Your task to perform on an android device: open app "Google Play services" (install if not already installed) Image 0: 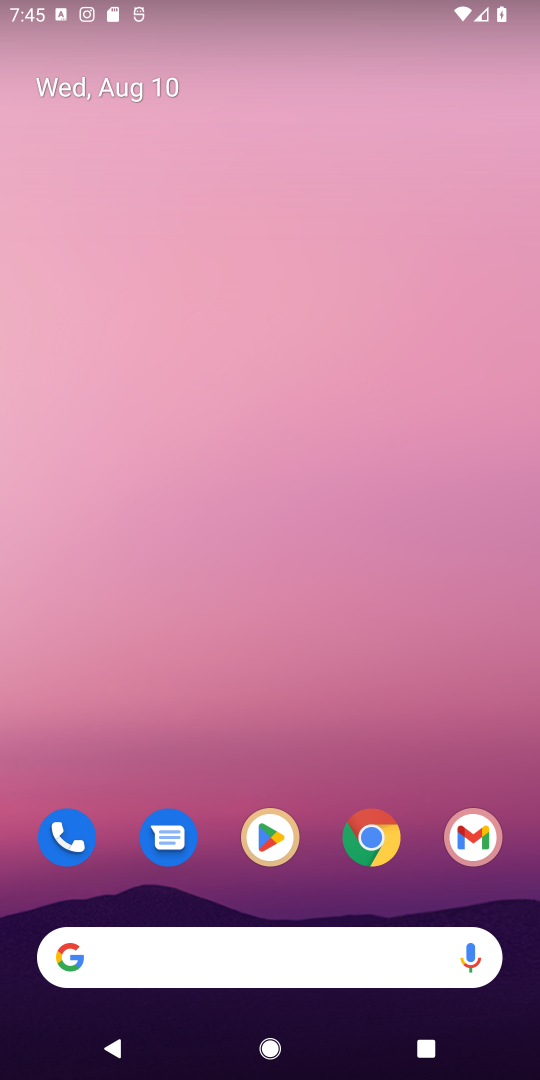
Step 0: click (264, 844)
Your task to perform on an android device: open app "Google Play services" (install if not already installed) Image 1: 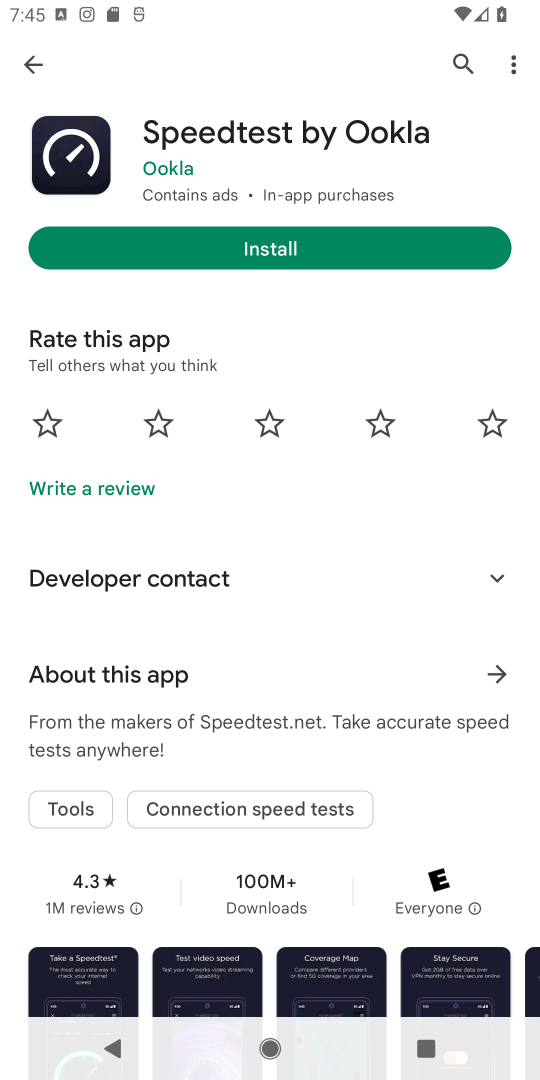
Step 1: click (465, 53)
Your task to perform on an android device: open app "Google Play services" (install if not already installed) Image 2: 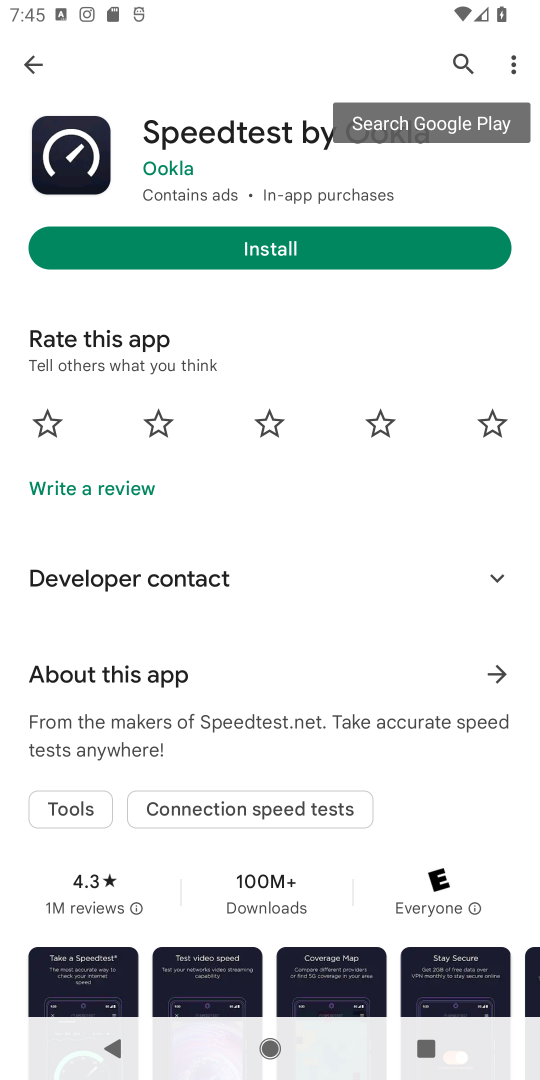
Step 2: click (464, 64)
Your task to perform on an android device: open app "Google Play services" (install if not already installed) Image 3: 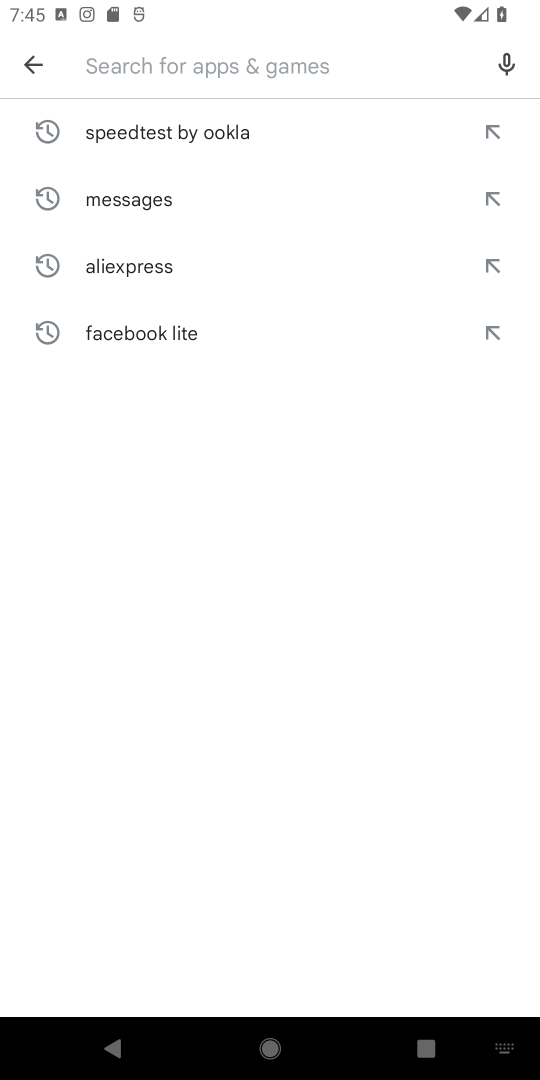
Step 3: type "Google Play services"
Your task to perform on an android device: open app "Google Play services" (install if not already installed) Image 4: 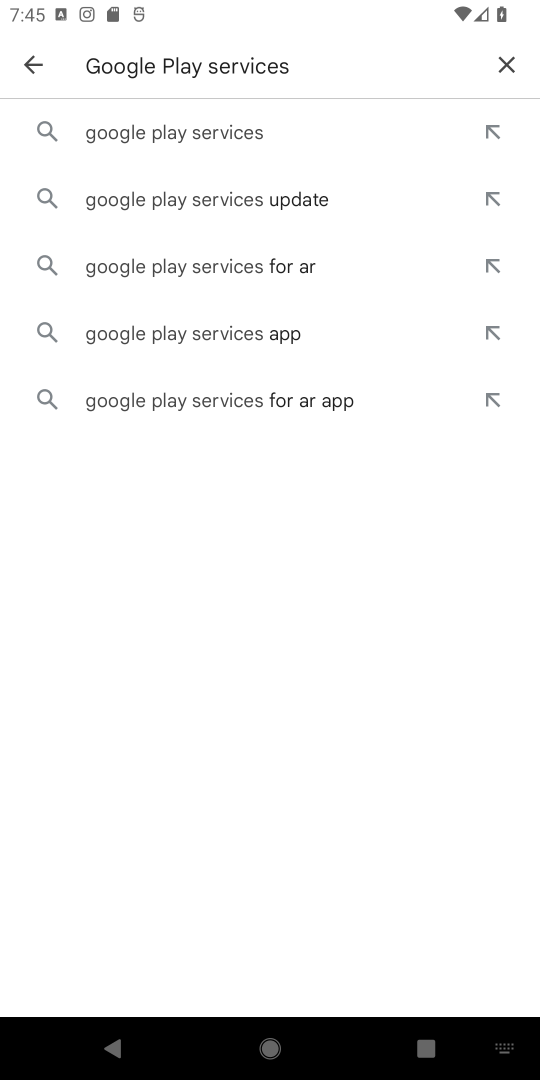
Step 4: click (216, 129)
Your task to perform on an android device: open app "Google Play services" (install if not already installed) Image 5: 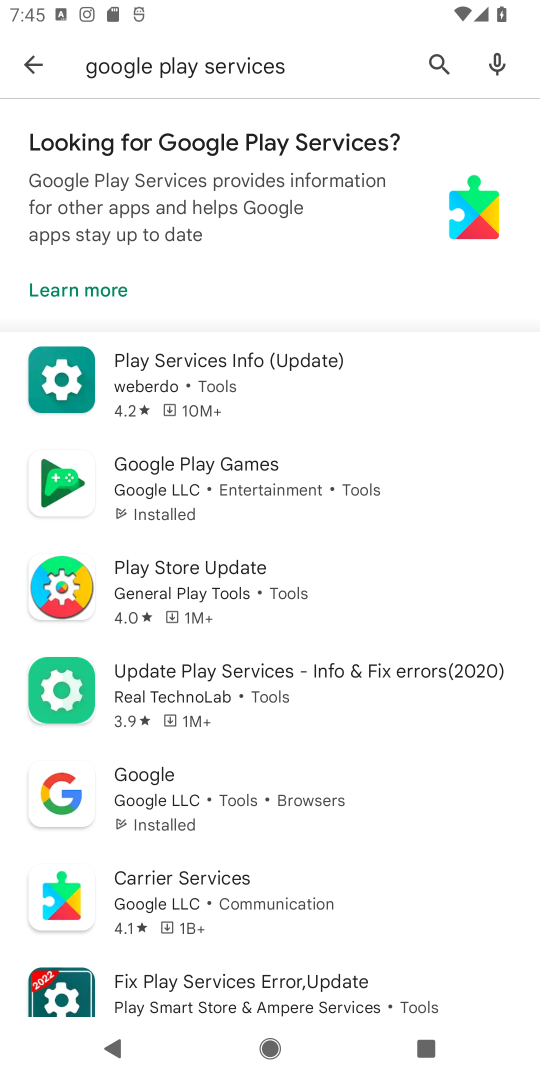
Step 5: task complete